Your task to perform on an android device: open app "Instagram" (install if not already installed), go to login, and select forgot password Image 0: 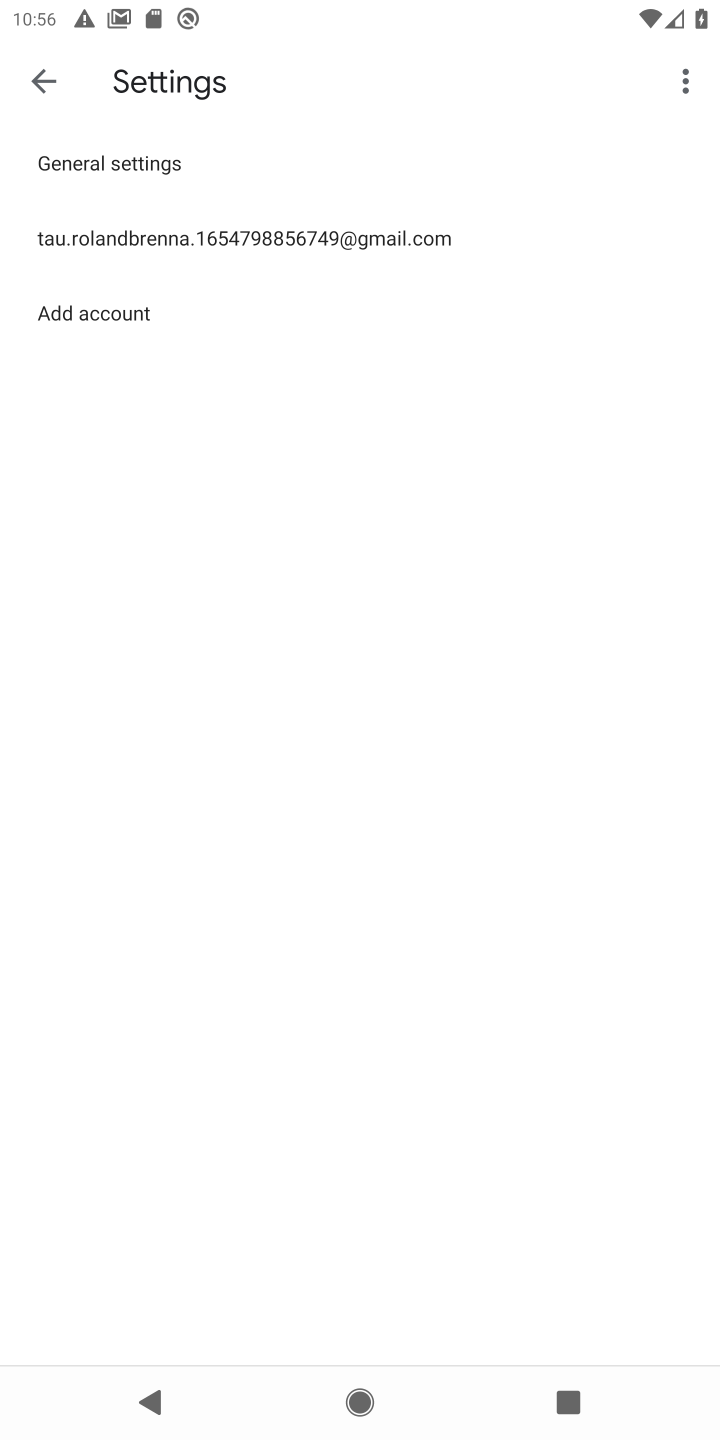
Step 0: press home button
Your task to perform on an android device: open app "Instagram" (install if not already installed), go to login, and select forgot password Image 1: 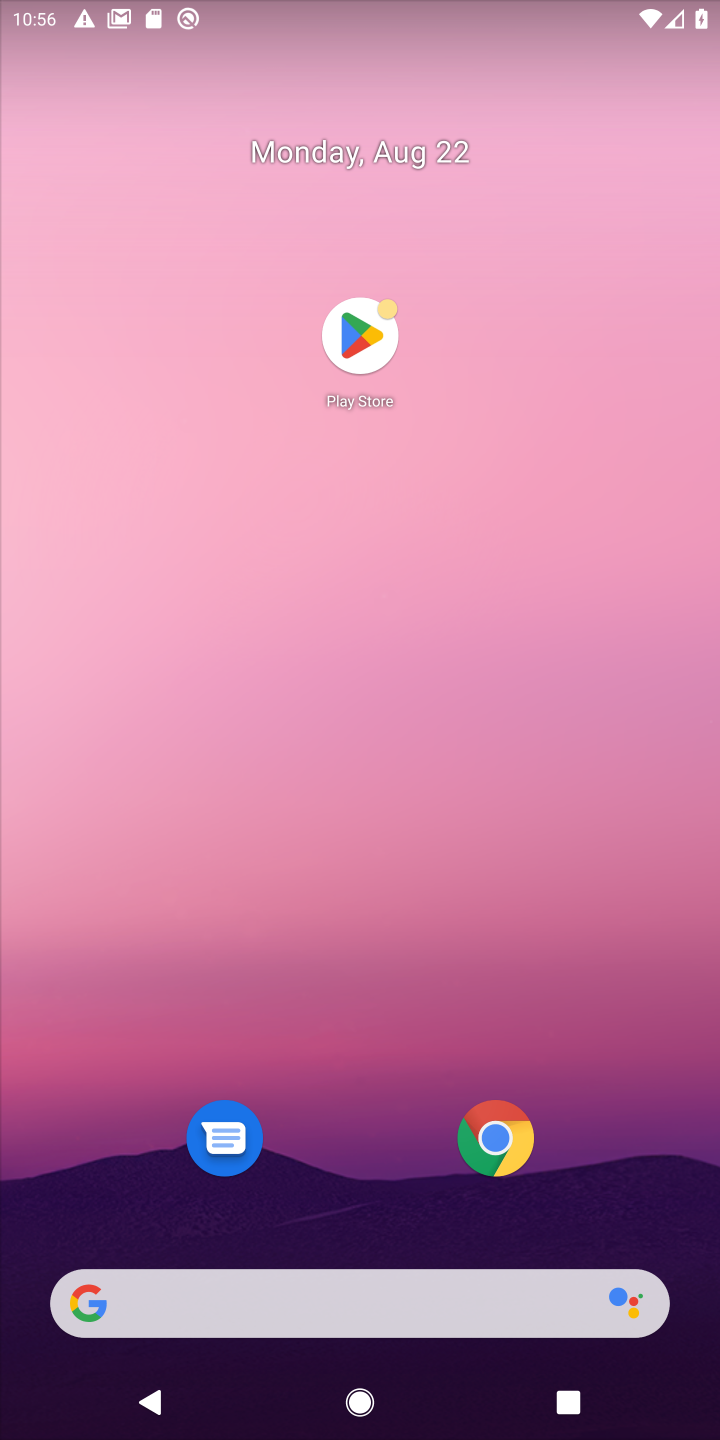
Step 1: click (362, 340)
Your task to perform on an android device: open app "Instagram" (install if not already installed), go to login, and select forgot password Image 2: 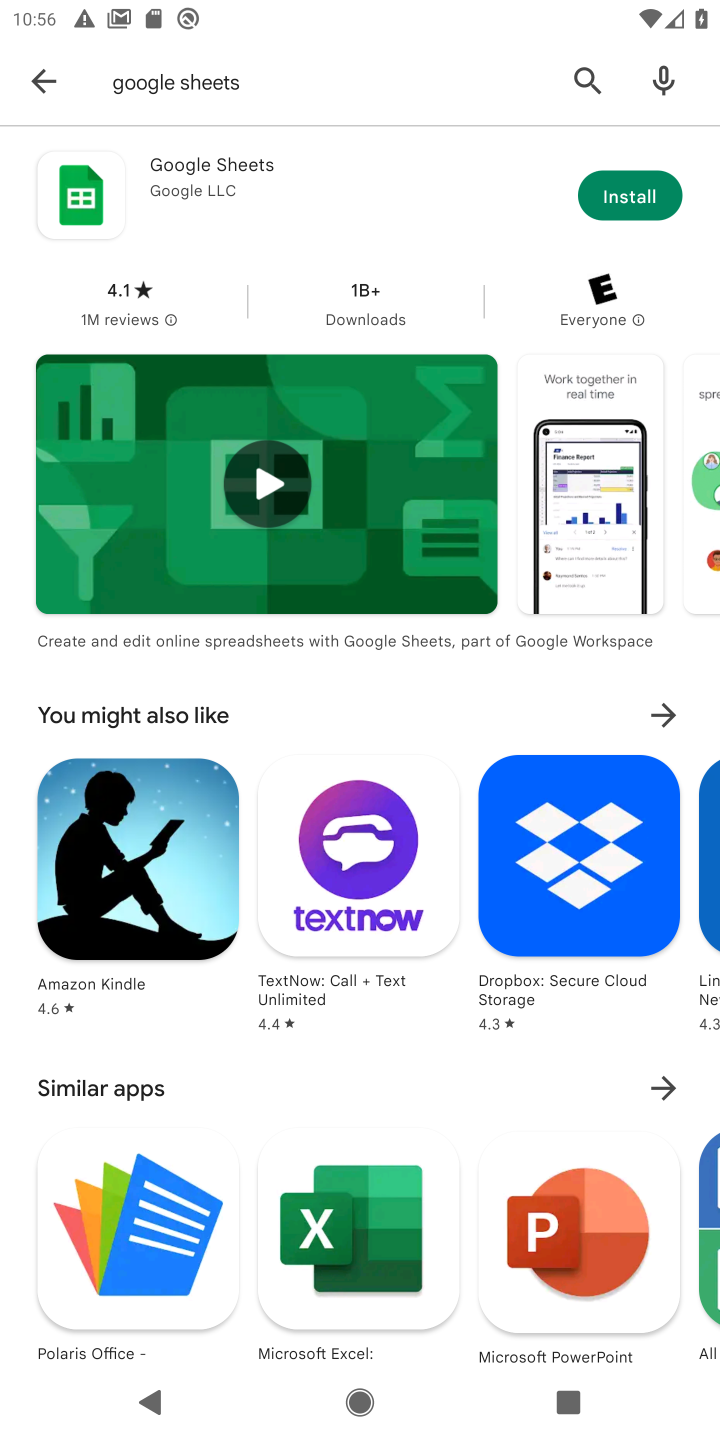
Step 2: click (578, 86)
Your task to perform on an android device: open app "Instagram" (install if not already installed), go to login, and select forgot password Image 3: 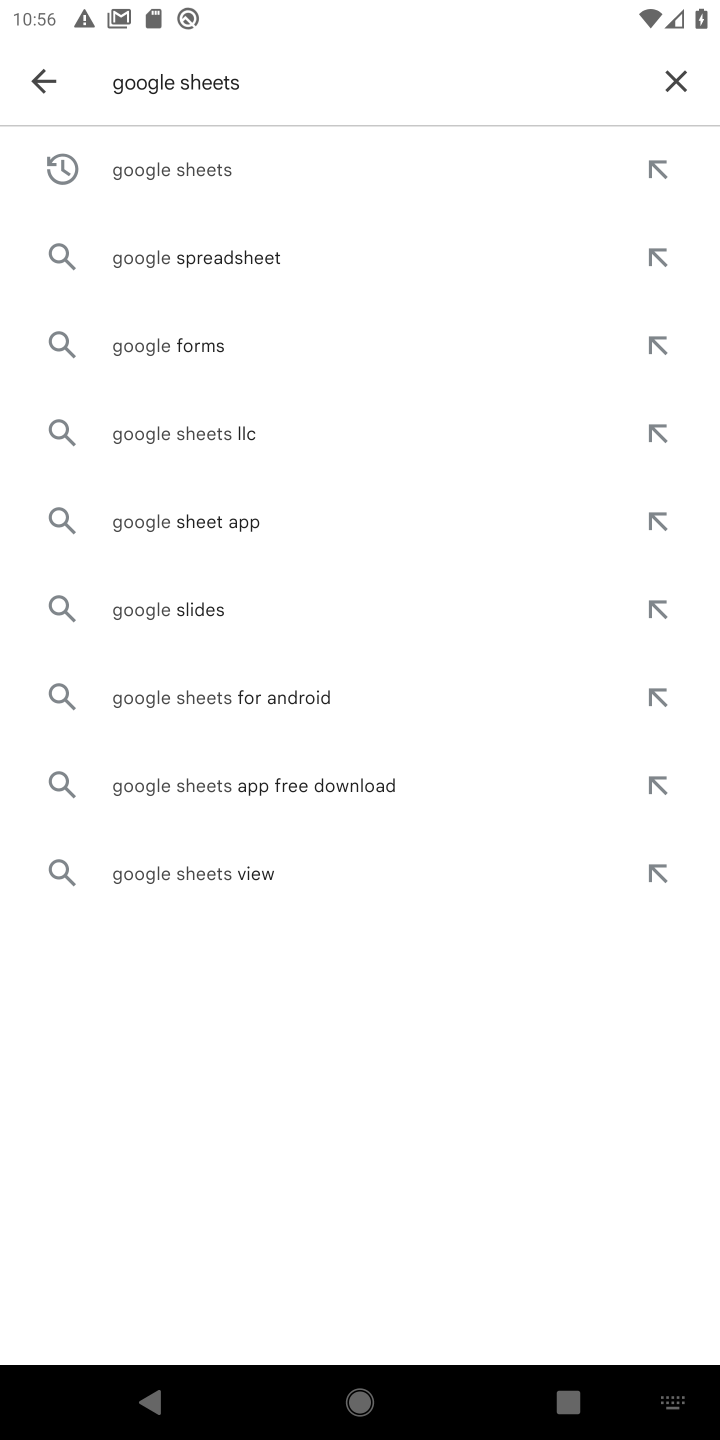
Step 3: click (668, 85)
Your task to perform on an android device: open app "Instagram" (install if not already installed), go to login, and select forgot password Image 4: 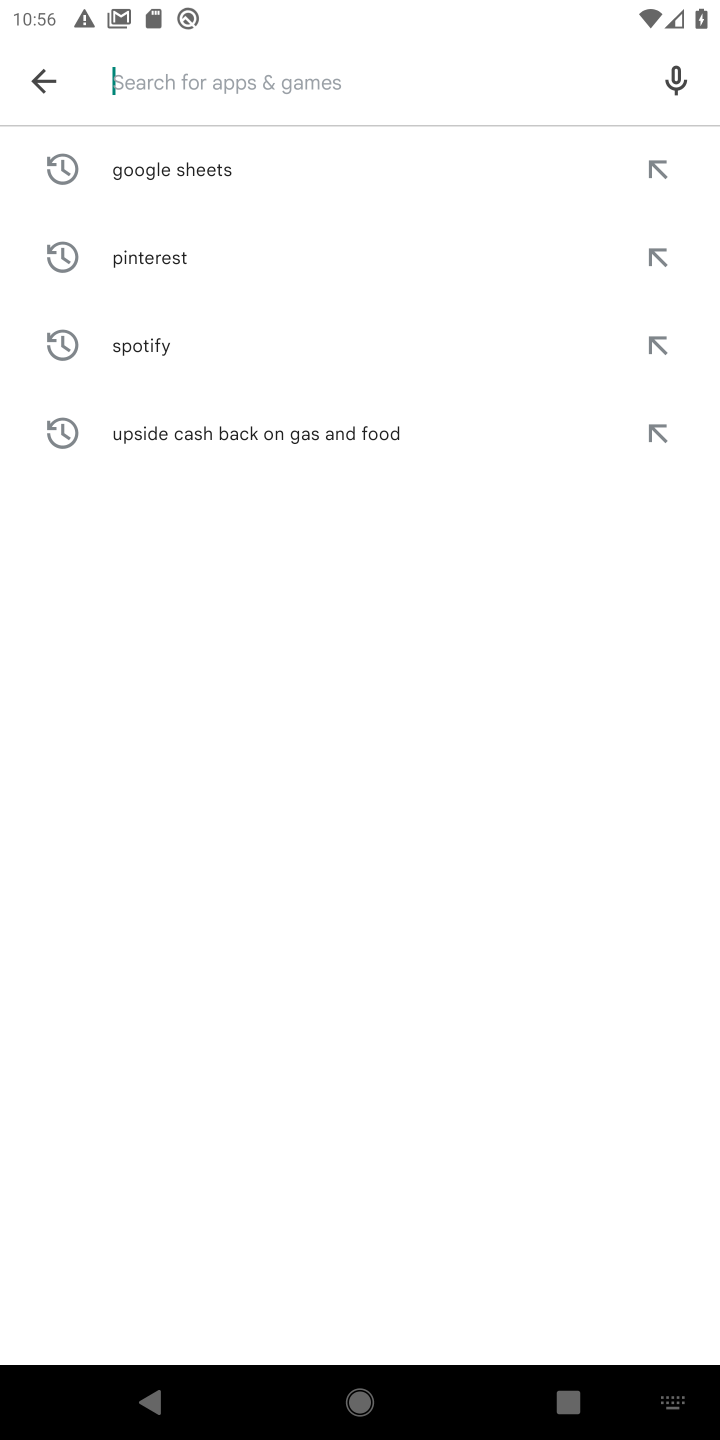
Step 4: type "instagram"
Your task to perform on an android device: open app "Instagram" (install if not already installed), go to login, and select forgot password Image 5: 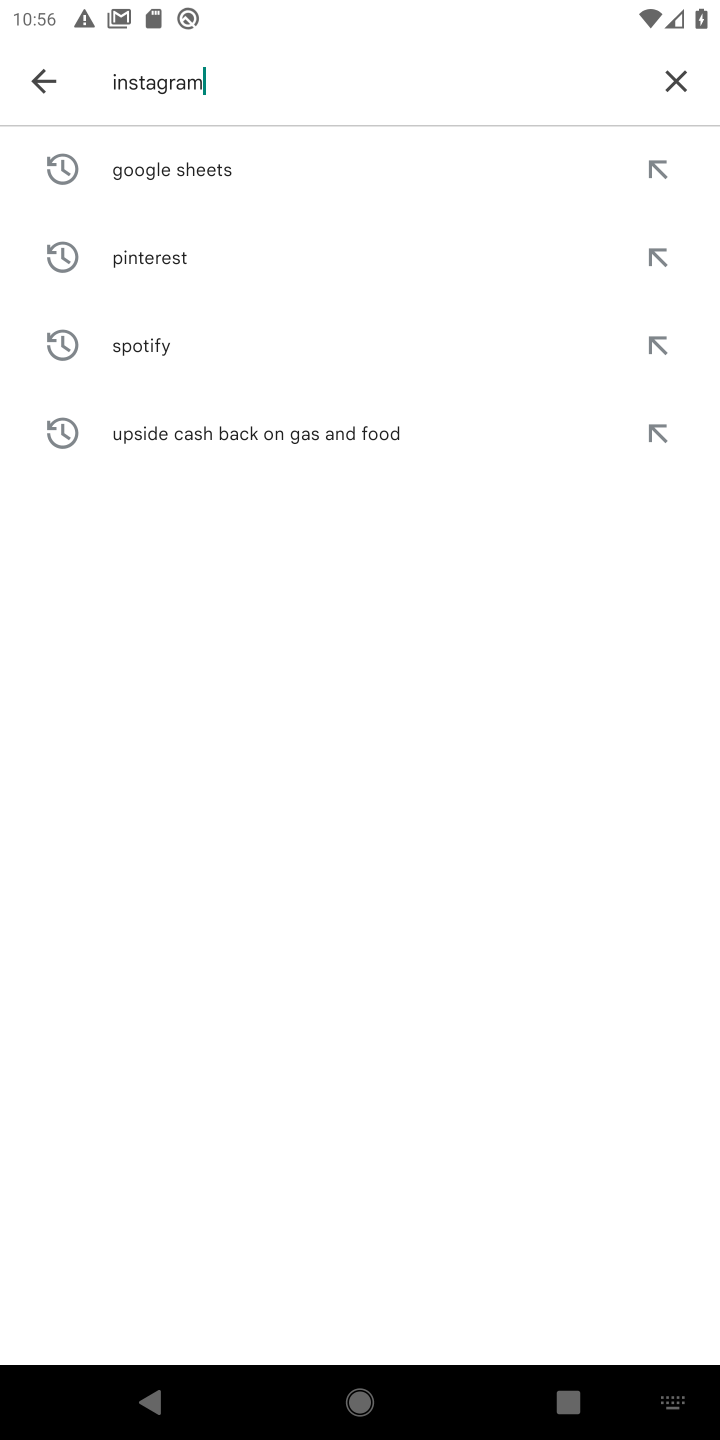
Step 5: type ""
Your task to perform on an android device: open app "Instagram" (install if not already installed), go to login, and select forgot password Image 6: 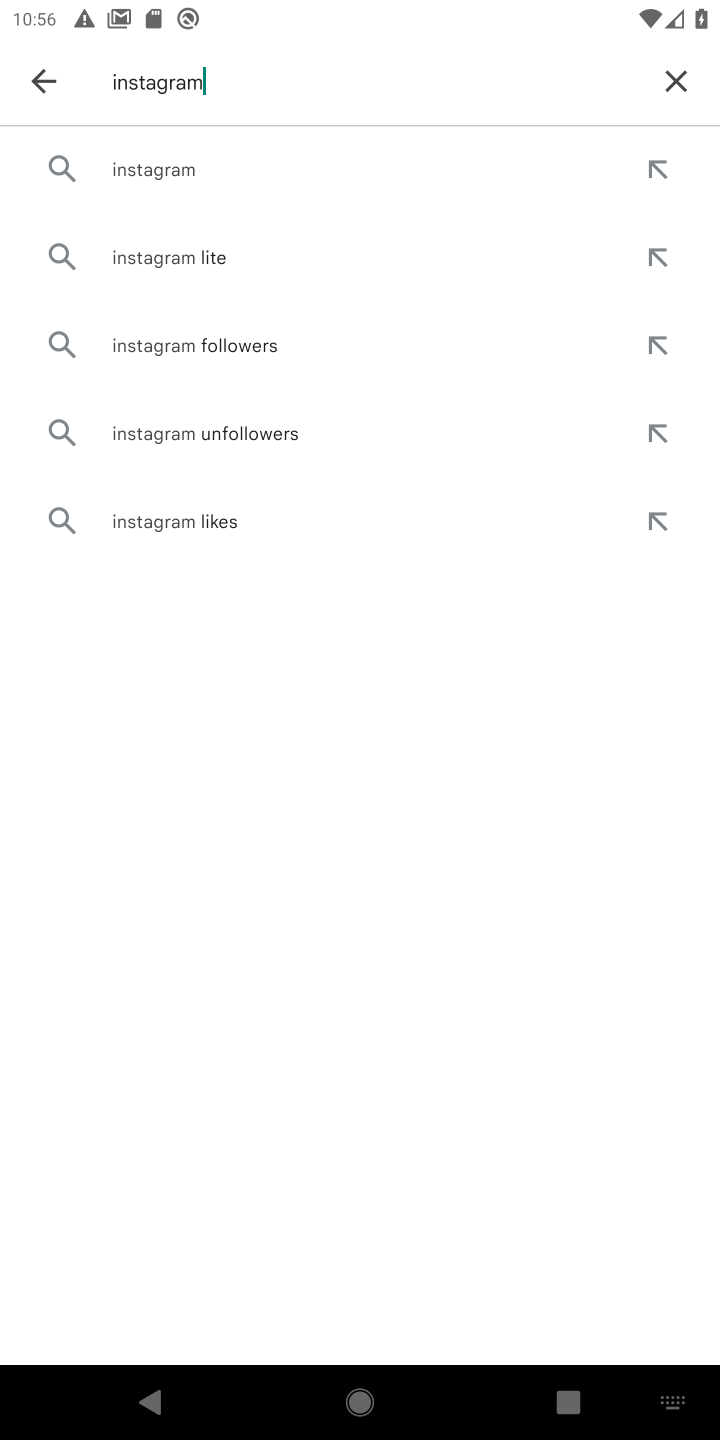
Step 6: click (172, 177)
Your task to perform on an android device: open app "Instagram" (install if not already installed), go to login, and select forgot password Image 7: 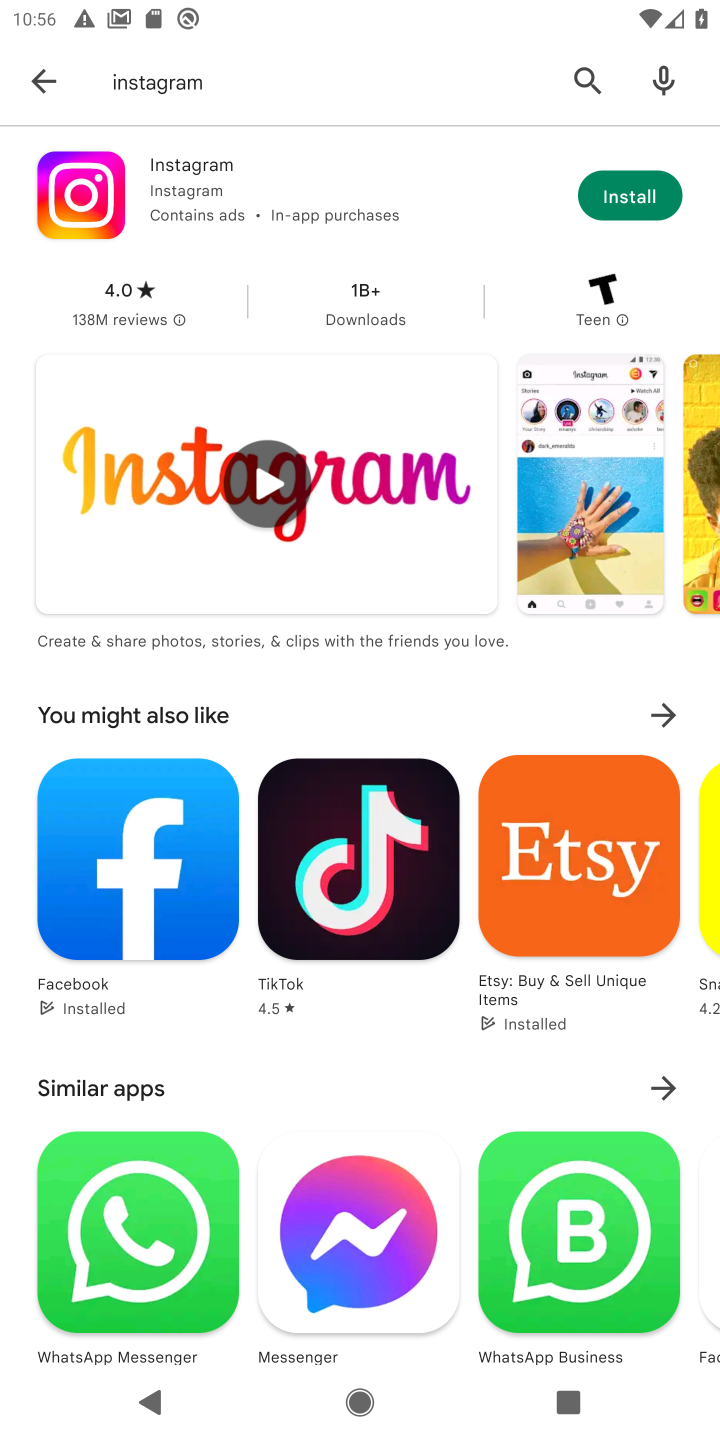
Step 7: click (638, 202)
Your task to perform on an android device: open app "Instagram" (install if not already installed), go to login, and select forgot password Image 8: 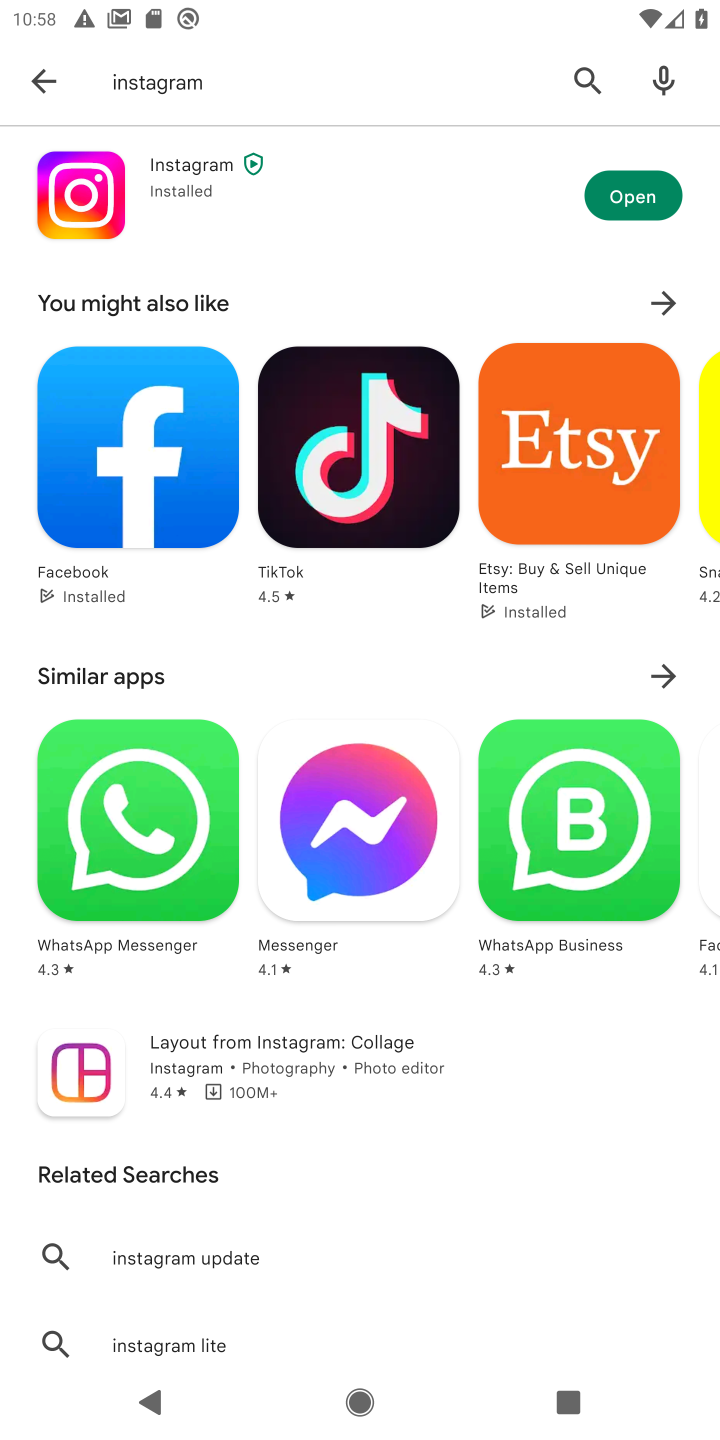
Step 8: click (640, 200)
Your task to perform on an android device: open app "Instagram" (install if not already installed), go to login, and select forgot password Image 9: 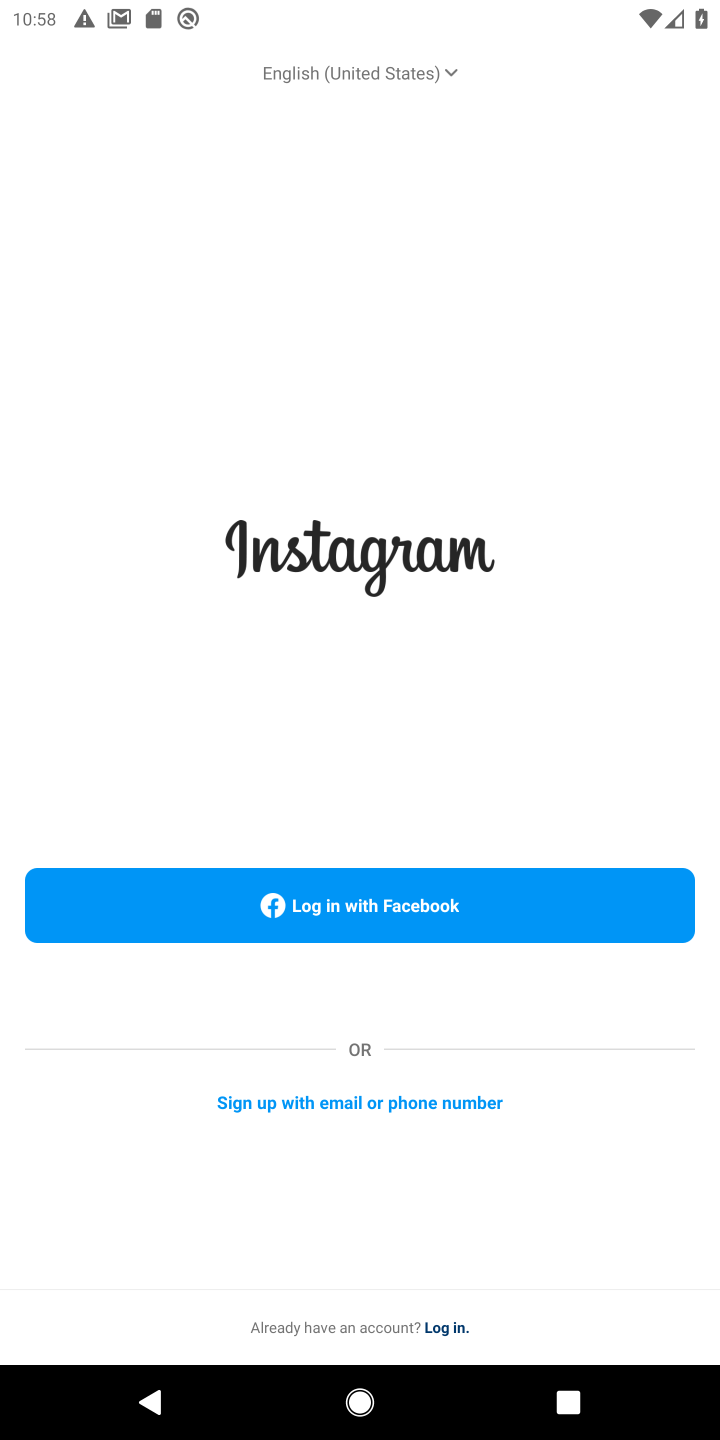
Step 9: click (439, 892)
Your task to perform on an android device: open app "Instagram" (install if not already installed), go to login, and select forgot password Image 10: 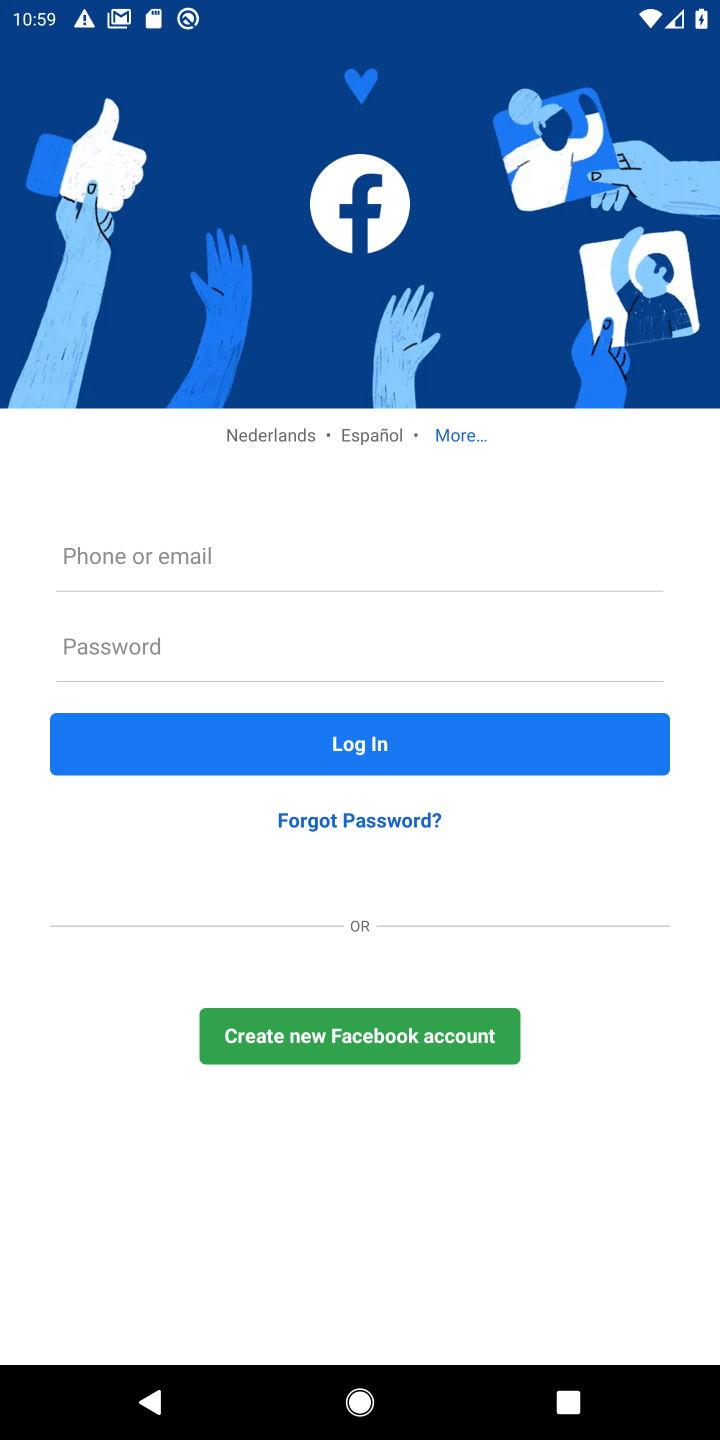
Step 10: click (387, 828)
Your task to perform on an android device: open app "Instagram" (install if not already installed), go to login, and select forgot password Image 11: 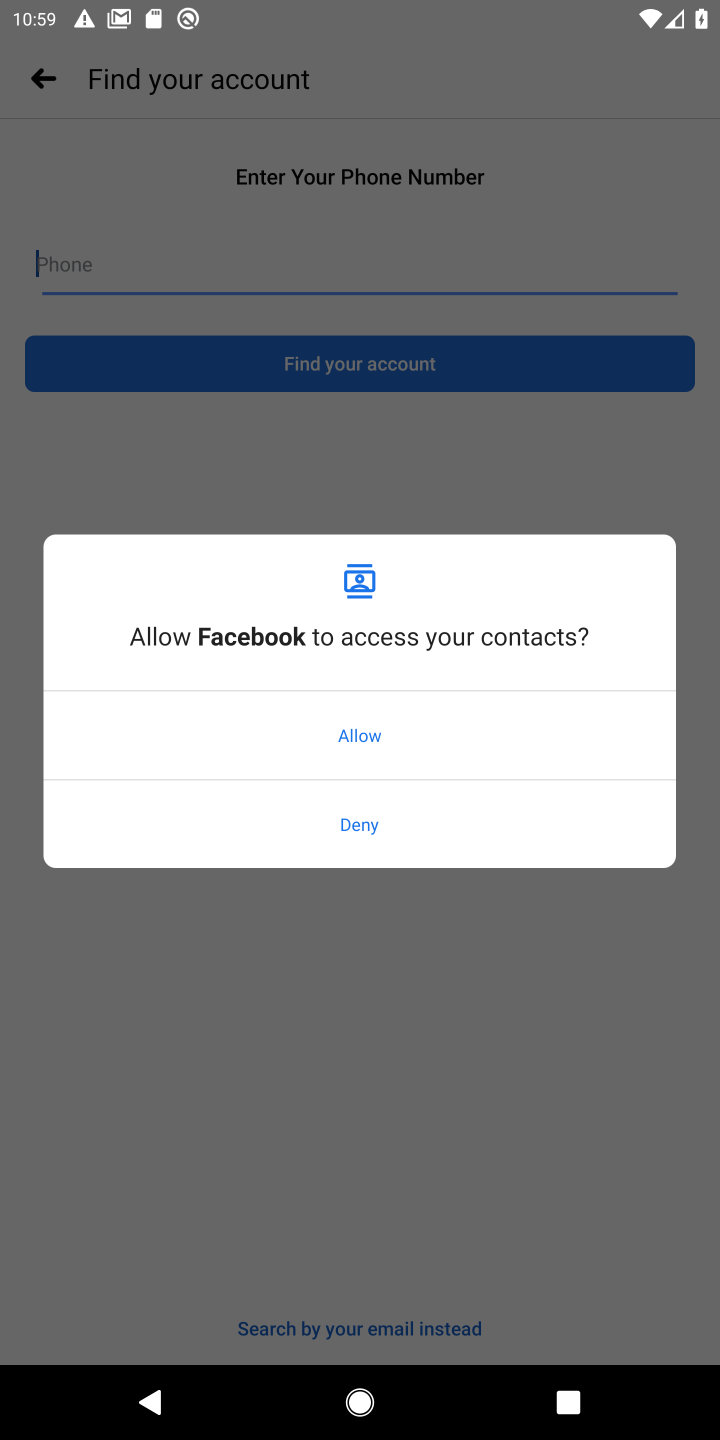
Step 11: task complete